Your task to perform on an android device: Open sound settings Image 0: 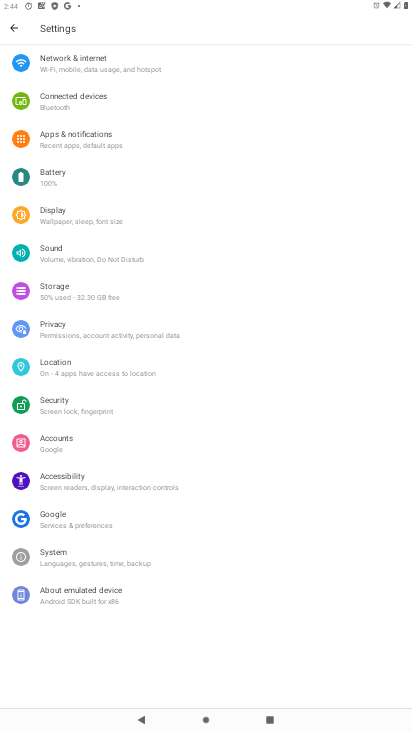
Step 0: click (54, 247)
Your task to perform on an android device: Open sound settings Image 1: 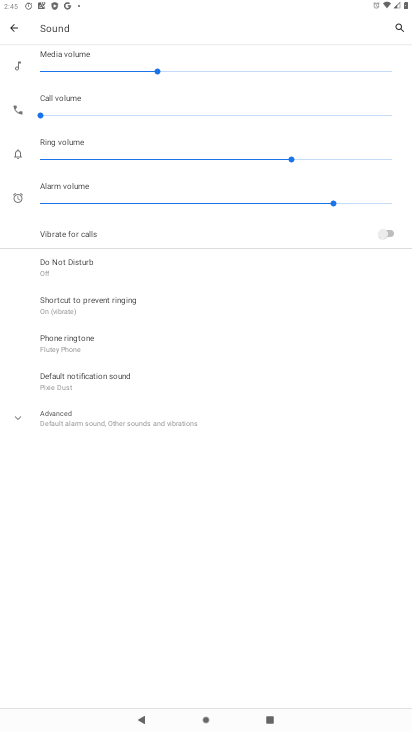
Step 1: task complete